Your task to perform on an android device: turn on sleep mode Image 0: 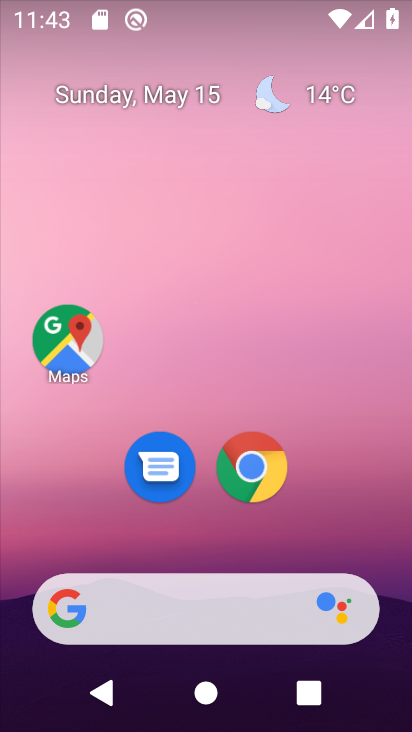
Step 0: drag from (201, 291) to (213, 16)
Your task to perform on an android device: turn on sleep mode Image 1: 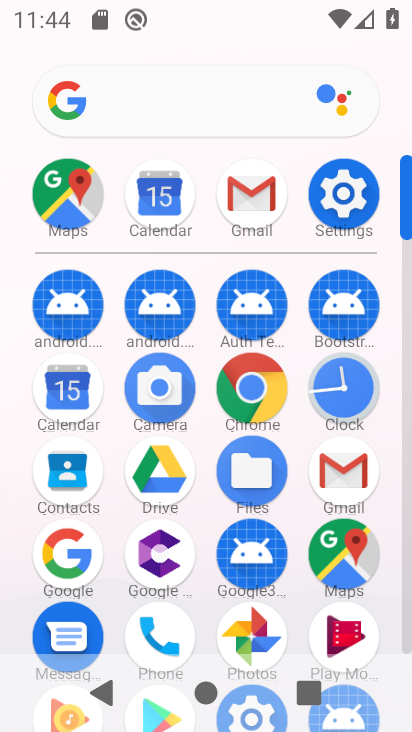
Step 1: click (344, 186)
Your task to perform on an android device: turn on sleep mode Image 2: 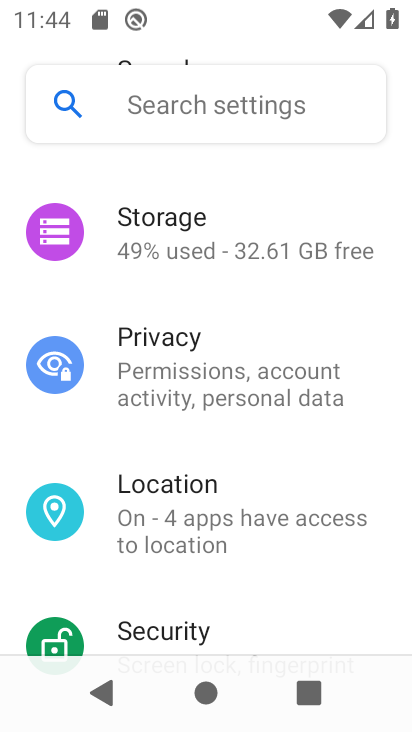
Step 2: drag from (249, 607) to (285, 151)
Your task to perform on an android device: turn on sleep mode Image 3: 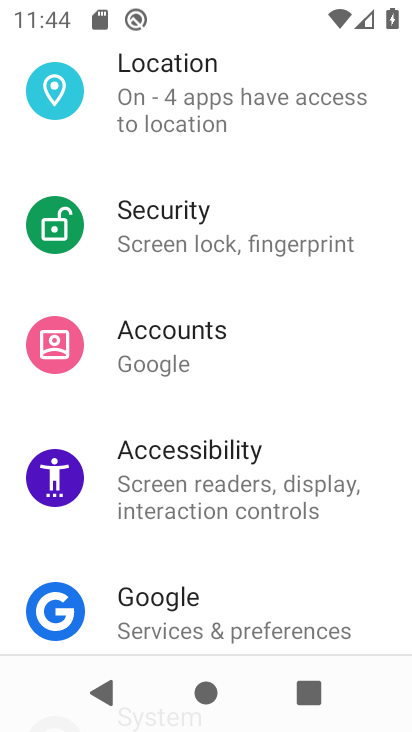
Step 3: drag from (226, 149) to (182, 723)
Your task to perform on an android device: turn on sleep mode Image 4: 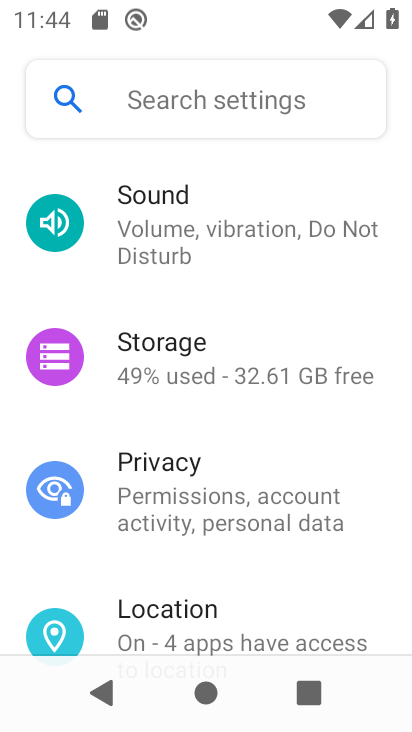
Step 4: drag from (259, 145) to (238, 722)
Your task to perform on an android device: turn on sleep mode Image 5: 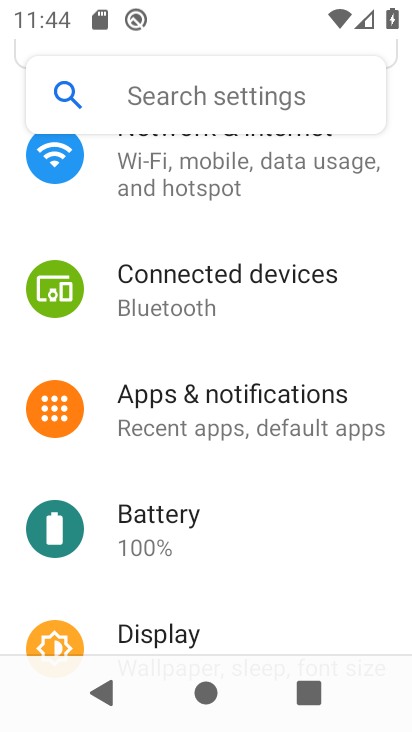
Step 5: click (189, 628)
Your task to perform on an android device: turn on sleep mode Image 6: 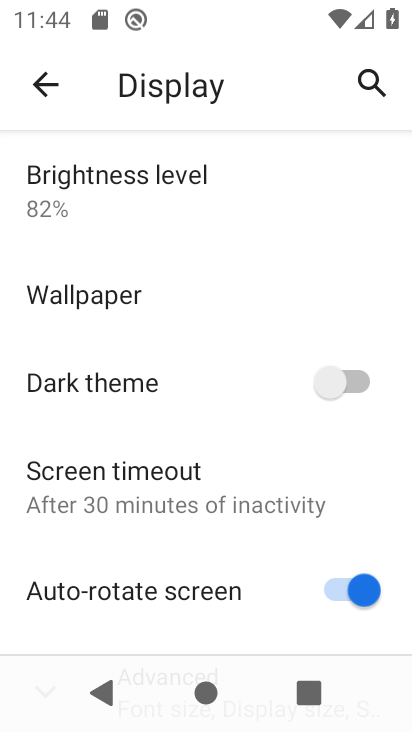
Step 6: drag from (193, 576) to (222, 188)
Your task to perform on an android device: turn on sleep mode Image 7: 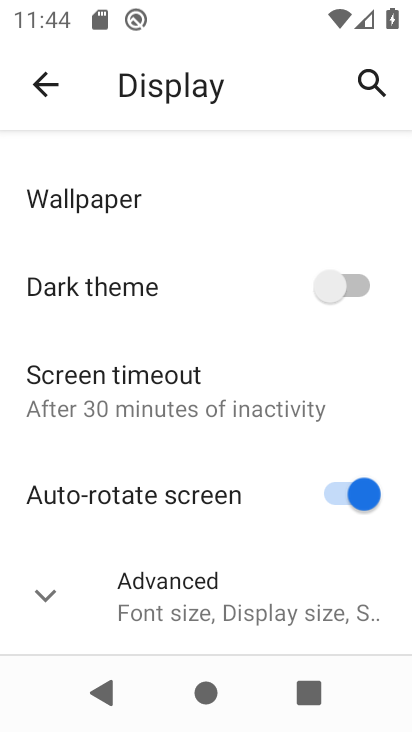
Step 7: drag from (223, 591) to (227, 373)
Your task to perform on an android device: turn on sleep mode Image 8: 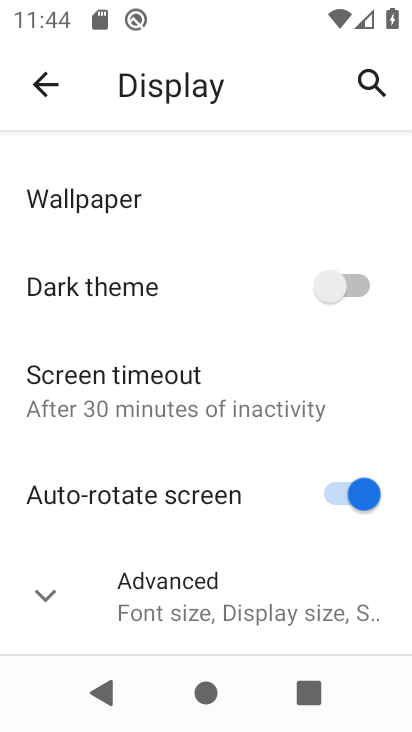
Step 8: click (51, 587)
Your task to perform on an android device: turn on sleep mode Image 9: 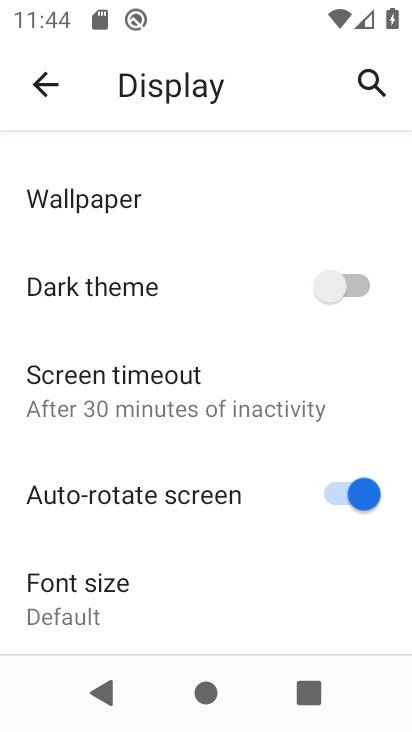
Step 9: task complete